Your task to perform on an android device: What's on my calendar tomorrow? Image 0: 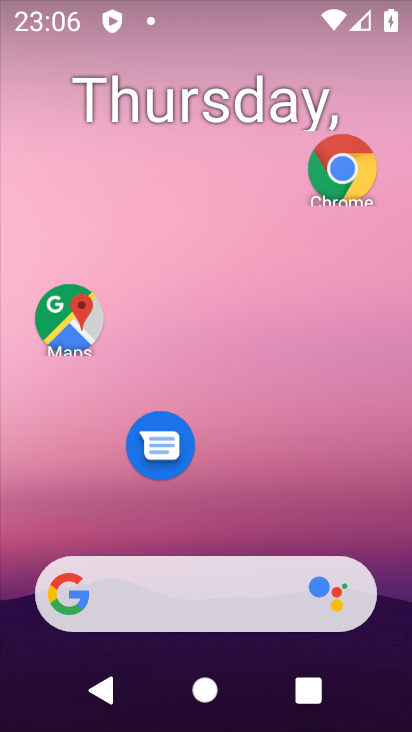
Step 0: drag from (249, 480) to (272, 202)
Your task to perform on an android device: What's on my calendar tomorrow? Image 1: 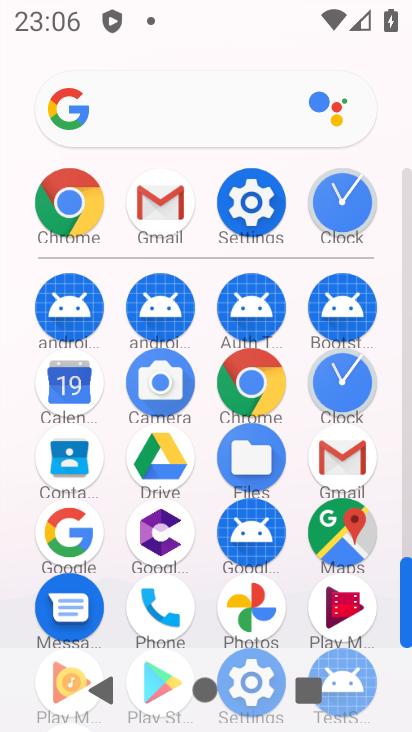
Step 1: click (76, 386)
Your task to perform on an android device: What's on my calendar tomorrow? Image 2: 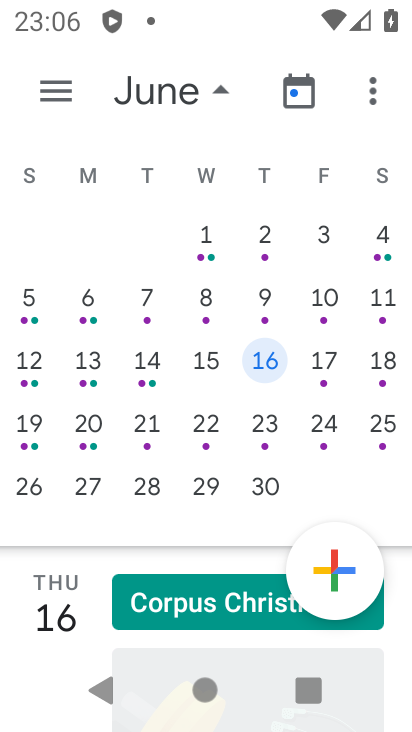
Step 2: click (331, 378)
Your task to perform on an android device: What's on my calendar tomorrow? Image 3: 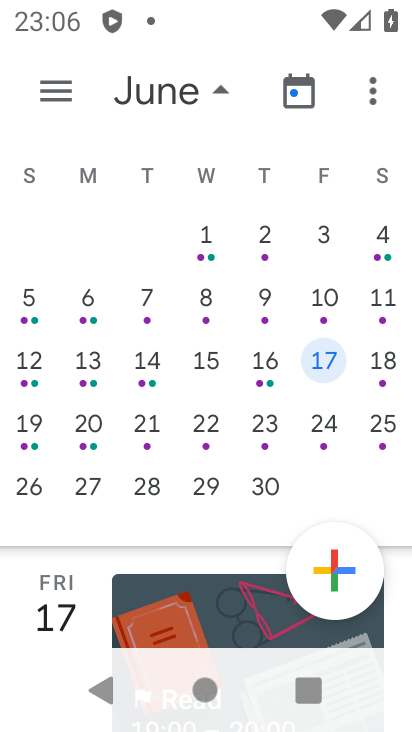
Step 3: drag from (18, 387) to (409, 351)
Your task to perform on an android device: What's on my calendar tomorrow? Image 4: 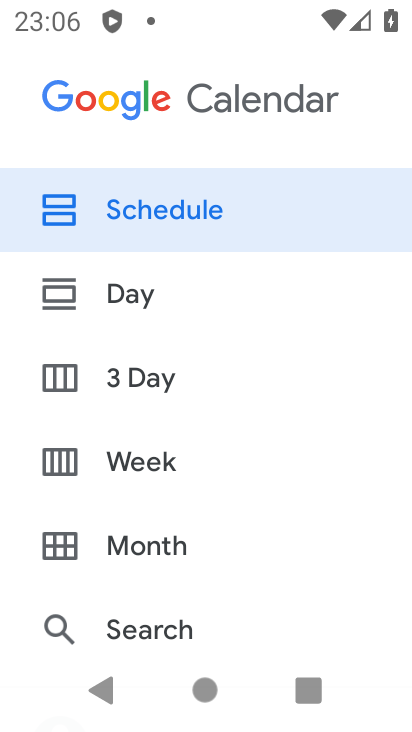
Step 4: press back button
Your task to perform on an android device: What's on my calendar tomorrow? Image 5: 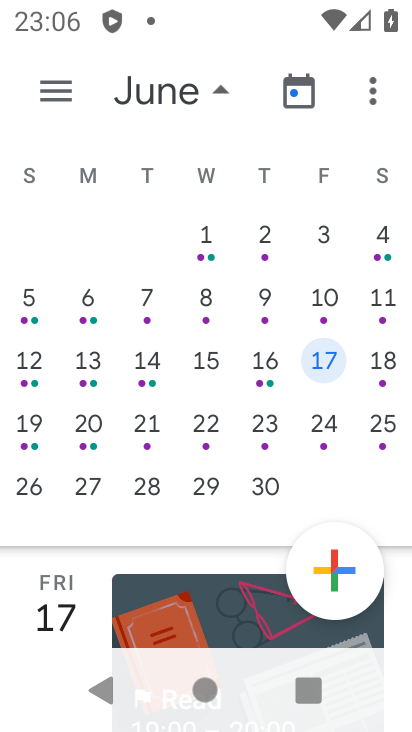
Step 5: drag from (42, 403) to (378, 260)
Your task to perform on an android device: What's on my calendar tomorrow? Image 6: 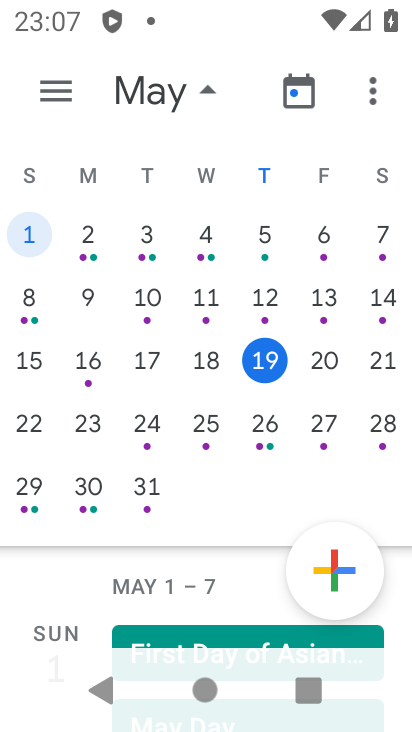
Step 6: click (305, 364)
Your task to perform on an android device: What's on my calendar tomorrow? Image 7: 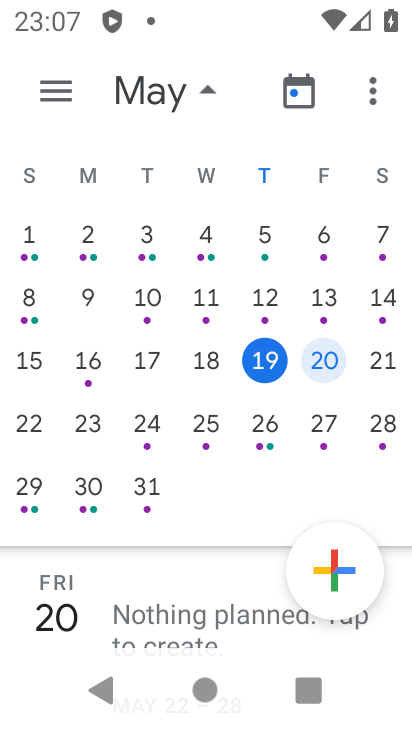
Step 7: task complete